Your task to perform on an android device: all mails in gmail Image 0: 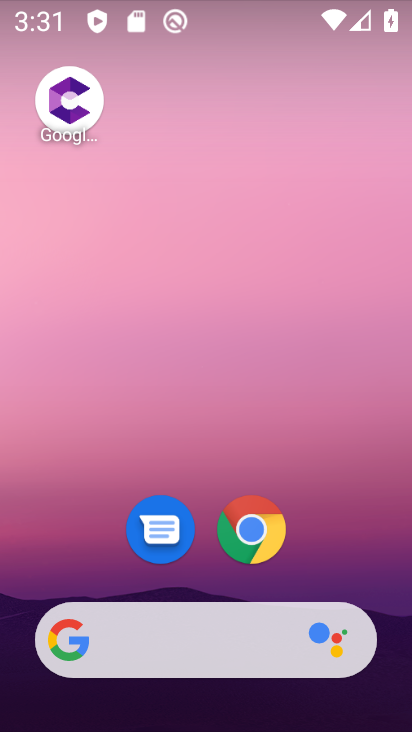
Step 0: drag from (203, 577) to (297, 13)
Your task to perform on an android device: all mails in gmail Image 1: 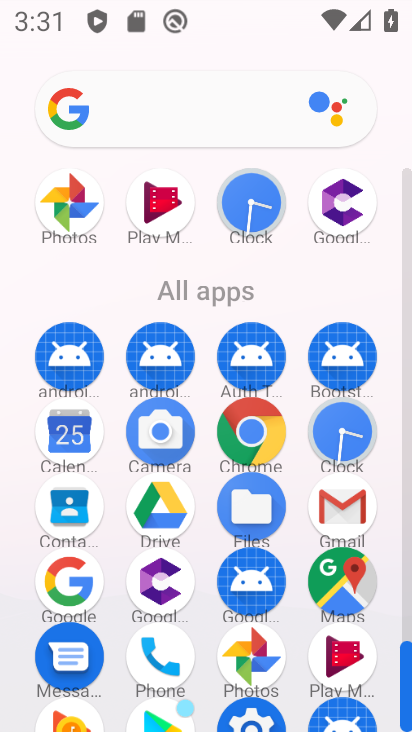
Step 1: click (346, 516)
Your task to perform on an android device: all mails in gmail Image 2: 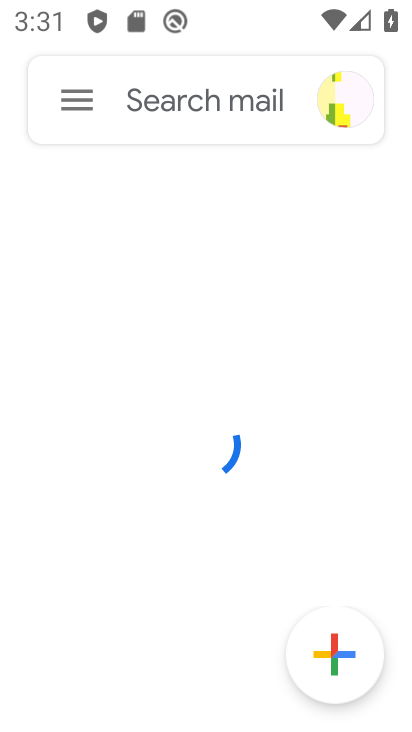
Step 2: click (63, 106)
Your task to perform on an android device: all mails in gmail Image 3: 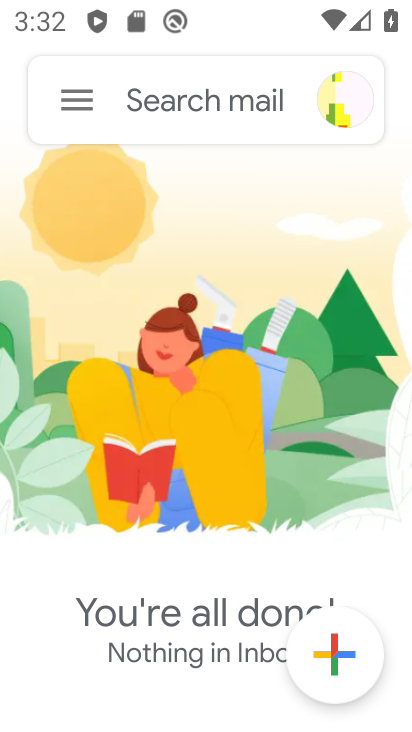
Step 3: click (78, 110)
Your task to perform on an android device: all mails in gmail Image 4: 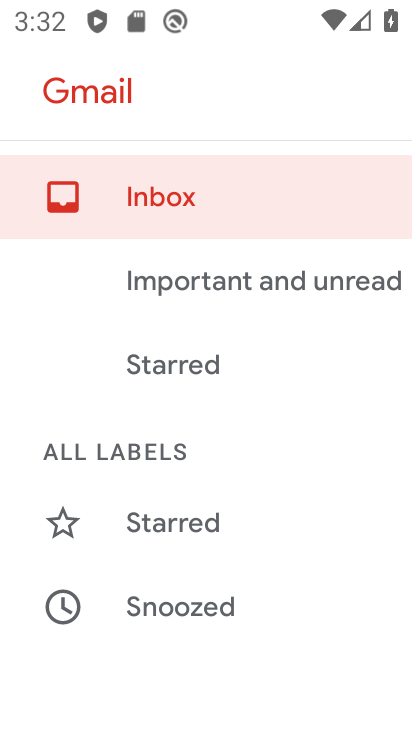
Step 4: drag from (160, 560) to (230, 151)
Your task to perform on an android device: all mails in gmail Image 5: 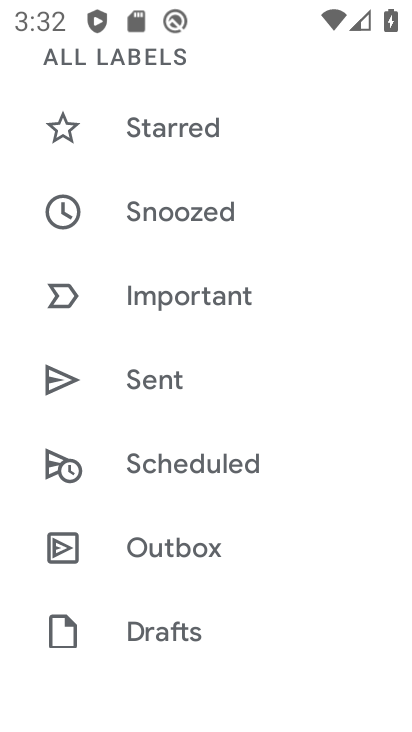
Step 5: drag from (197, 533) to (301, 3)
Your task to perform on an android device: all mails in gmail Image 6: 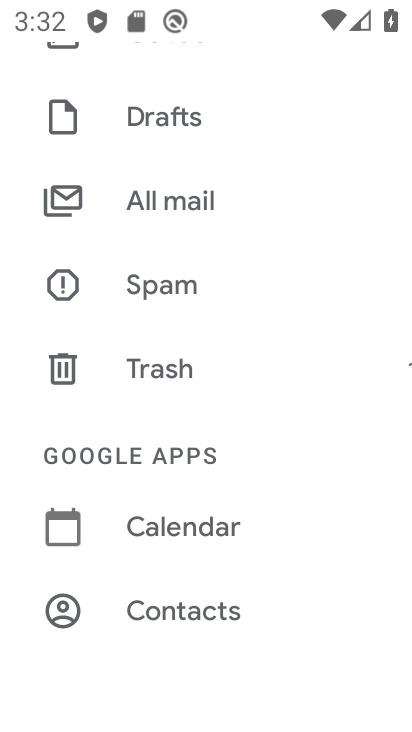
Step 6: click (175, 209)
Your task to perform on an android device: all mails in gmail Image 7: 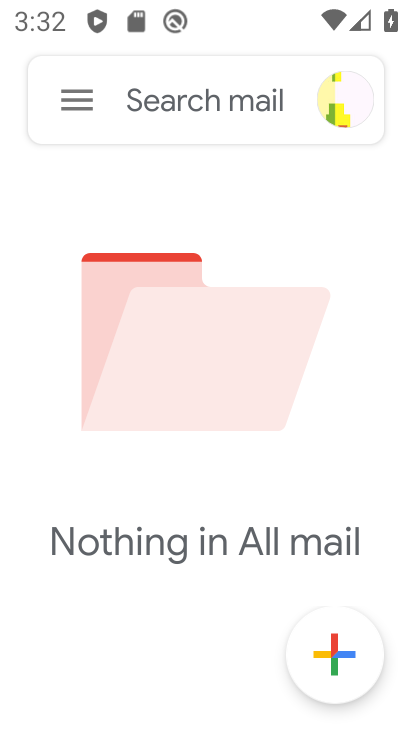
Step 7: task complete